Your task to perform on an android device: Go to network settings Image 0: 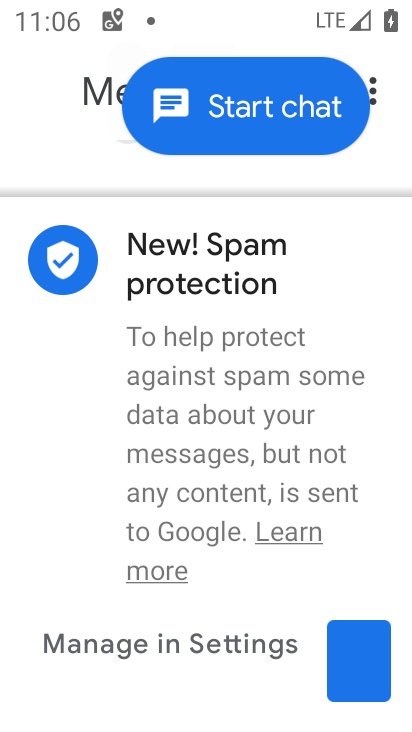
Step 0: press home button
Your task to perform on an android device: Go to network settings Image 1: 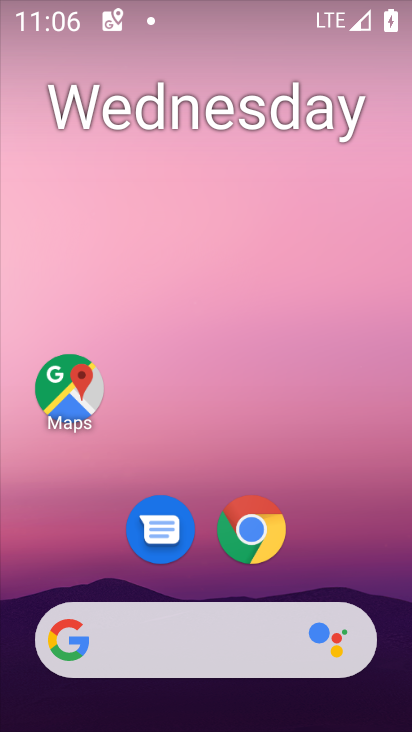
Step 1: drag from (399, 626) to (294, 31)
Your task to perform on an android device: Go to network settings Image 2: 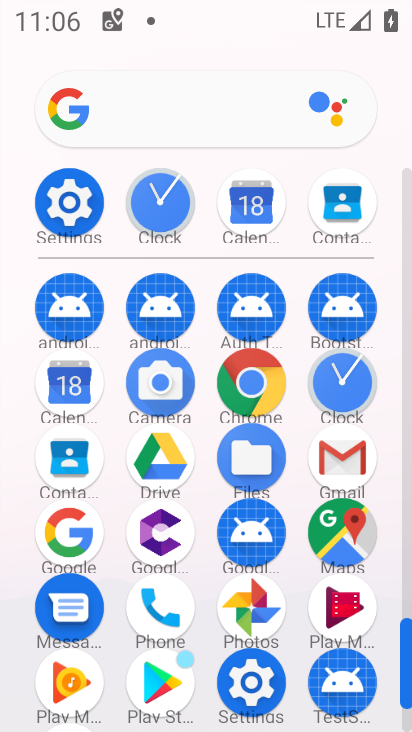
Step 2: click (250, 685)
Your task to perform on an android device: Go to network settings Image 3: 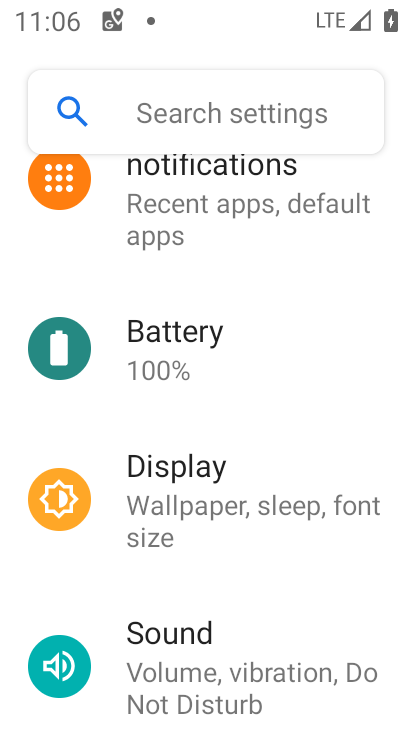
Step 3: drag from (387, 272) to (352, 606)
Your task to perform on an android device: Go to network settings Image 4: 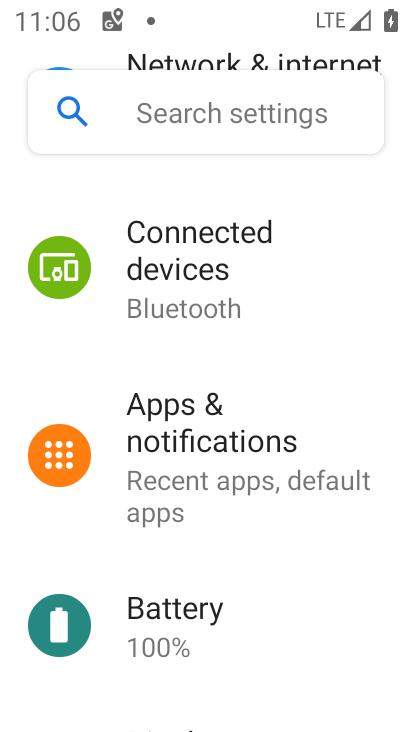
Step 4: drag from (341, 253) to (367, 561)
Your task to perform on an android device: Go to network settings Image 5: 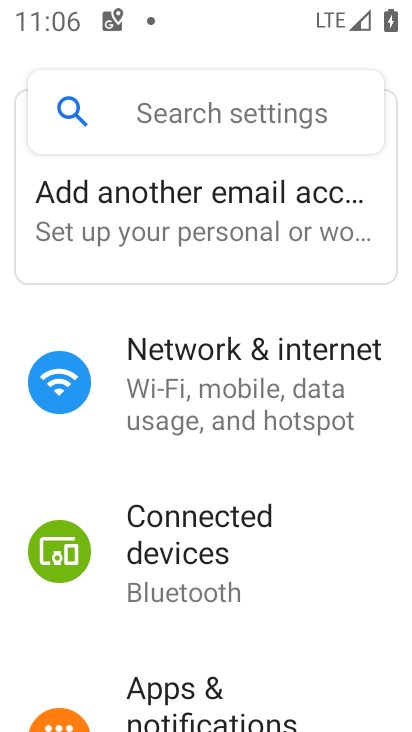
Step 5: click (179, 393)
Your task to perform on an android device: Go to network settings Image 6: 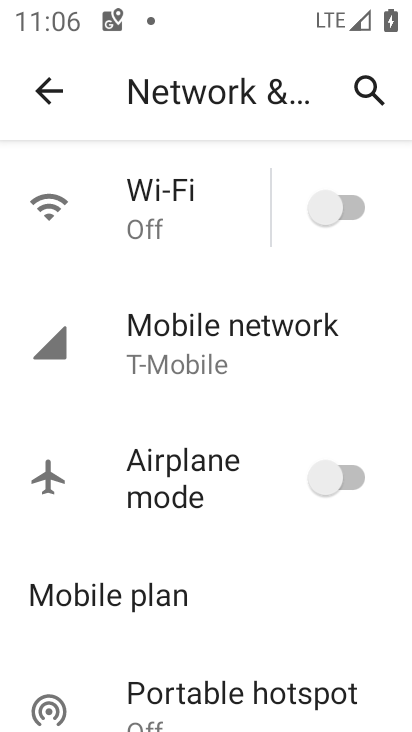
Step 6: click (174, 319)
Your task to perform on an android device: Go to network settings Image 7: 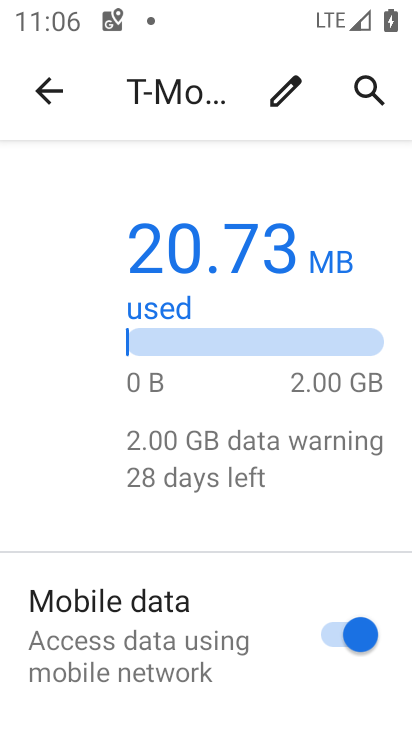
Step 7: task complete